Your task to perform on an android device: Open Maps and search for coffee Image 0: 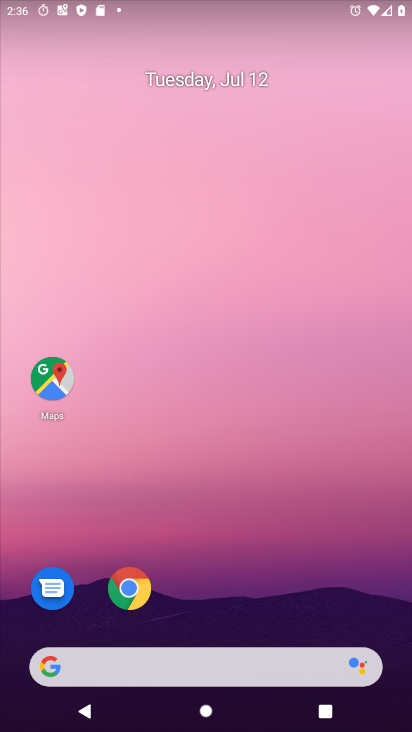
Step 0: click (243, 189)
Your task to perform on an android device: Open Maps and search for coffee Image 1: 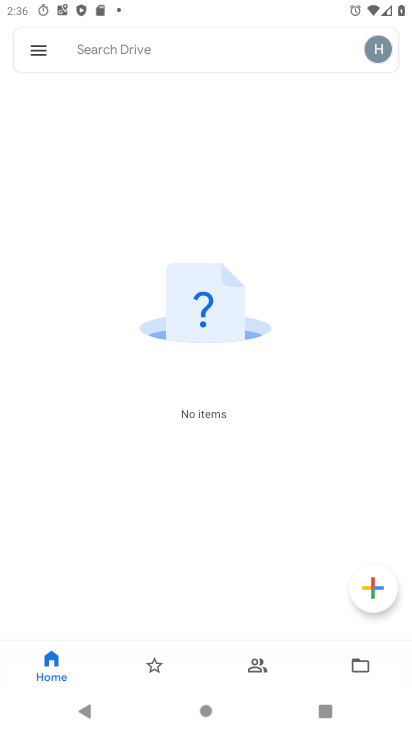
Step 1: drag from (211, 604) to (273, 411)
Your task to perform on an android device: Open Maps and search for coffee Image 2: 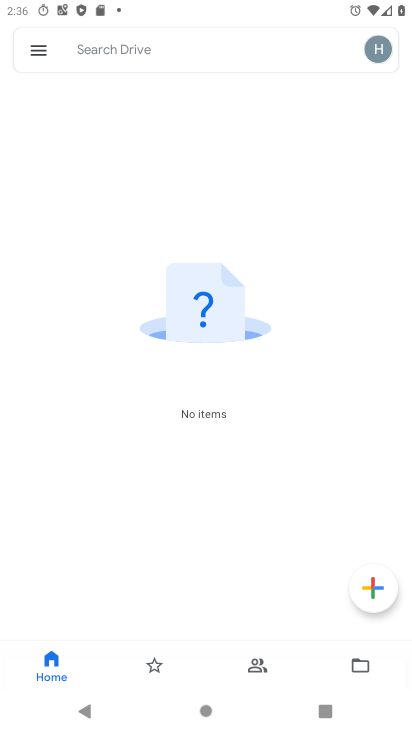
Step 2: press home button
Your task to perform on an android device: Open Maps and search for coffee Image 3: 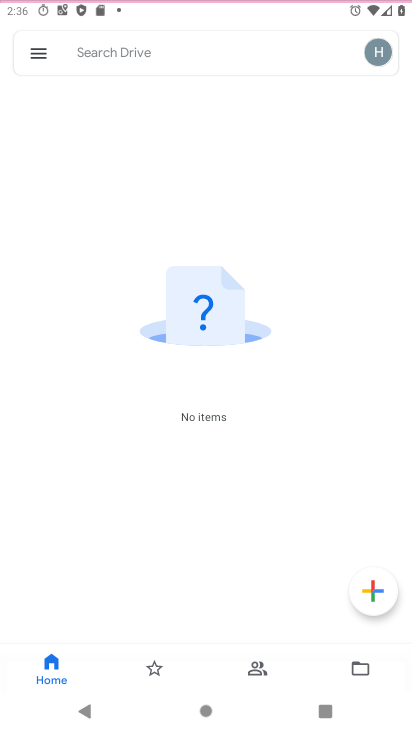
Step 3: drag from (161, 556) to (326, 6)
Your task to perform on an android device: Open Maps and search for coffee Image 4: 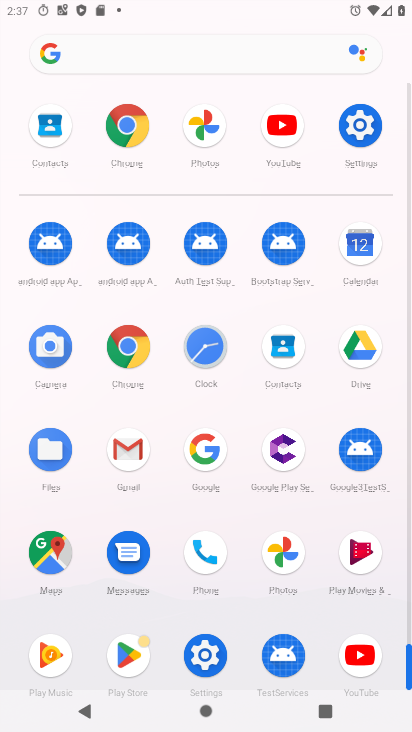
Step 4: click (42, 551)
Your task to perform on an android device: Open Maps and search for coffee Image 5: 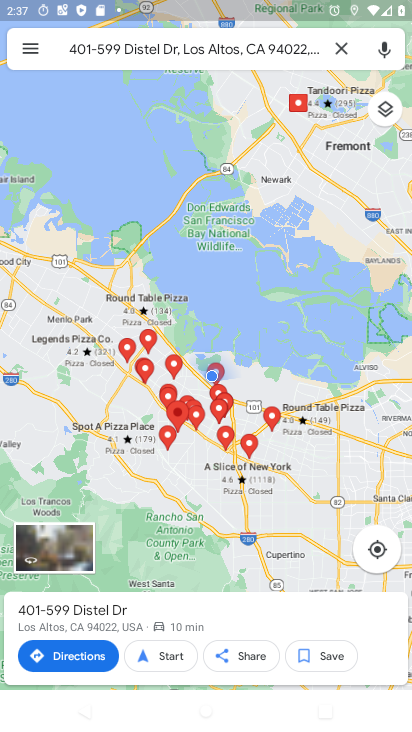
Step 5: drag from (153, 496) to (211, 288)
Your task to perform on an android device: Open Maps and search for coffee Image 6: 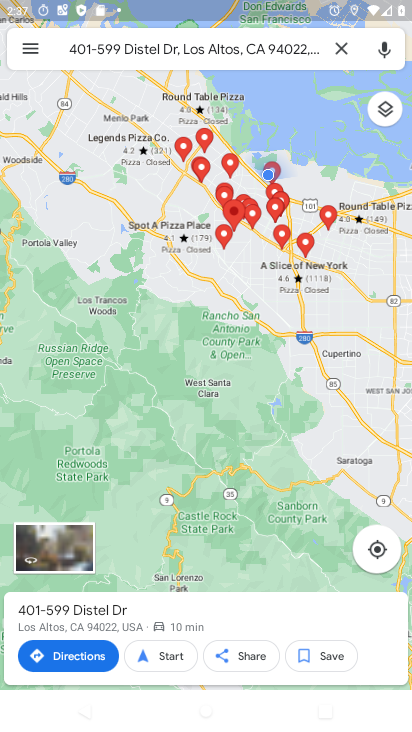
Step 6: click (337, 34)
Your task to perform on an android device: Open Maps and search for coffee Image 7: 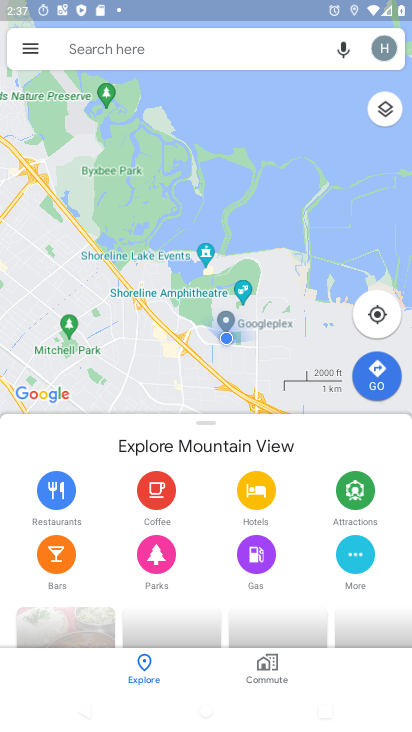
Step 7: click (214, 40)
Your task to perform on an android device: Open Maps and search for coffee Image 8: 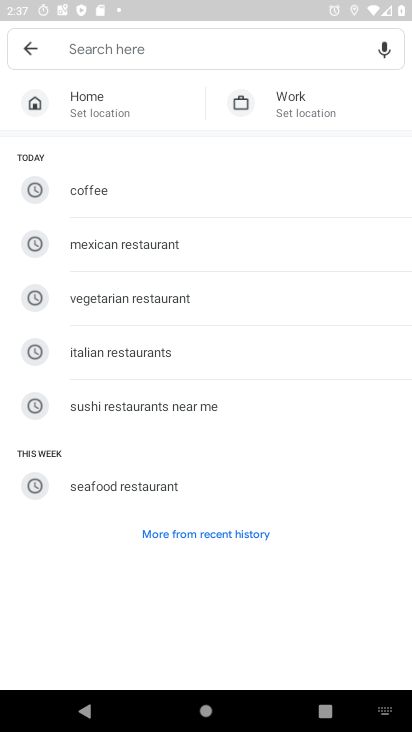
Step 8: click (126, 185)
Your task to perform on an android device: Open Maps and search for coffee Image 9: 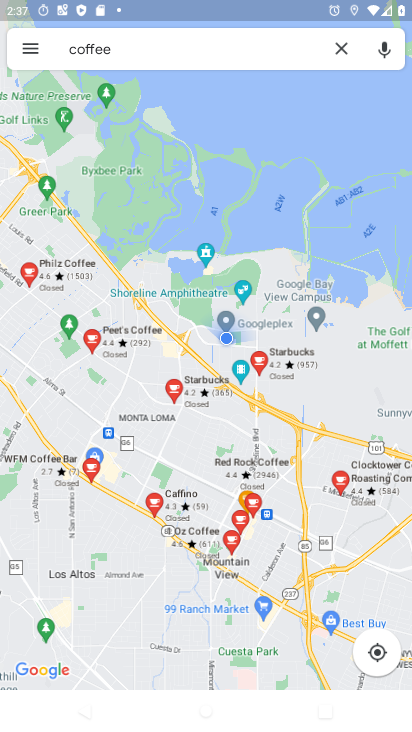
Step 9: task complete